Your task to perform on an android device: change alarm snooze length Image 0: 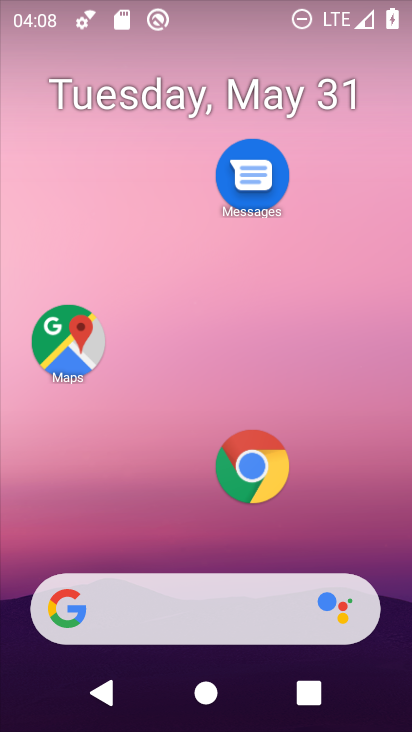
Step 0: drag from (125, 508) to (165, 43)
Your task to perform on an android device: change alarm snooze length Image 1: 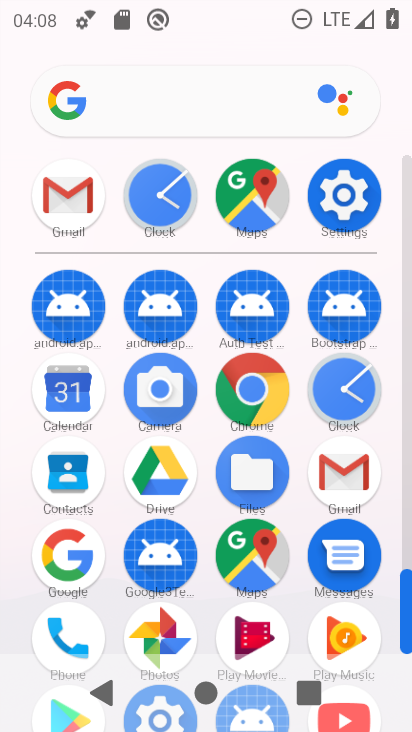
Step 1: click (347, 381)
Your task to perform on an android device: change alarm snooze length Image 2: 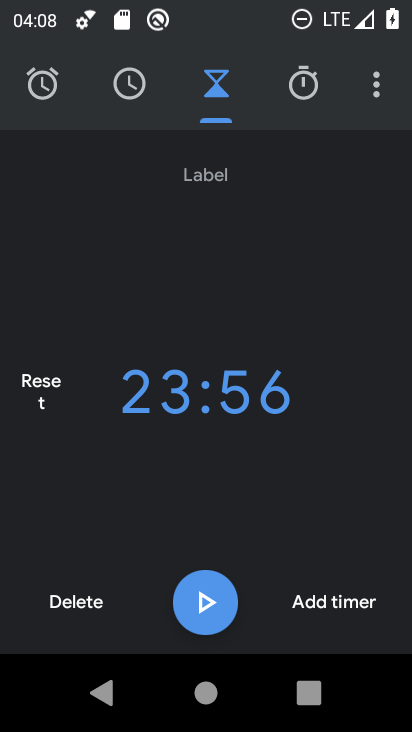
Step 2: click (373, 86)
Your task to perform on an android device: change alarm snooze length Image 3: 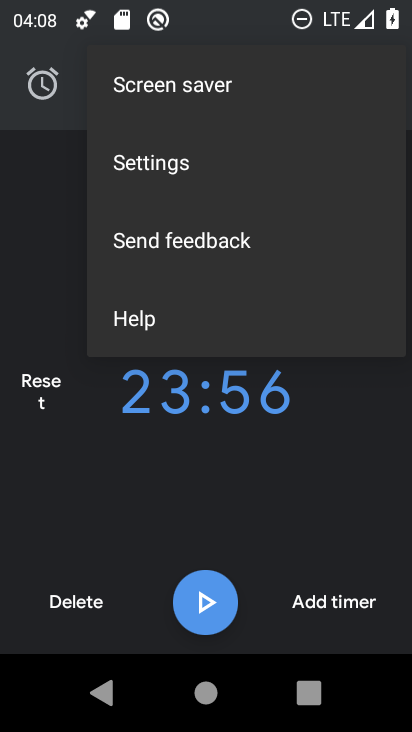
Step 3: click (240, 149)
Your task to perform on an android device: change alarm snooze length Image 4: 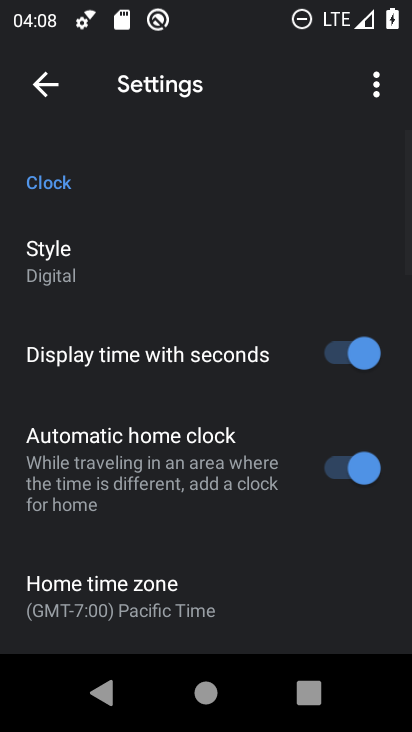
Step 4: drag from (146, 578) to (223, 43)
Your task to perform on an android device: change alarm snooze length Image 5: 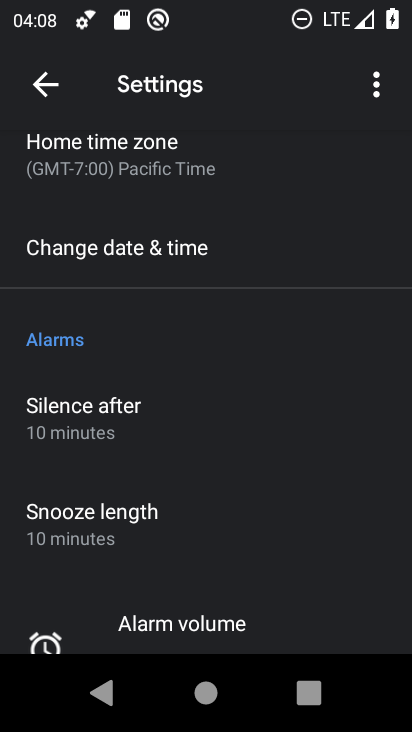
Step 5: click (117, 537)
Your task to perform on an android device: change alarm snooze length Image 6: 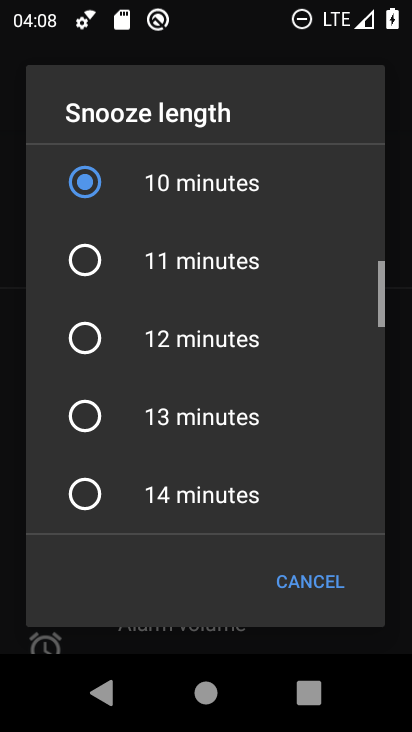
Step 6: click (86, 257)
Your task to perform on an android device: change alarm snooze length Image 7: 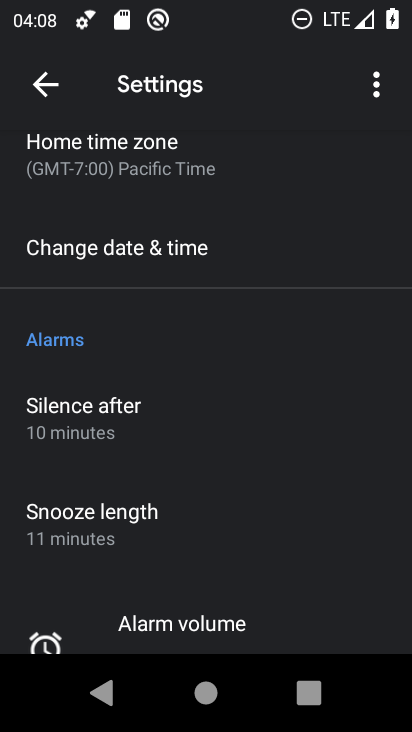
Step 7: task complete